Your task to perform on an android device: Check my gmail Image 0: 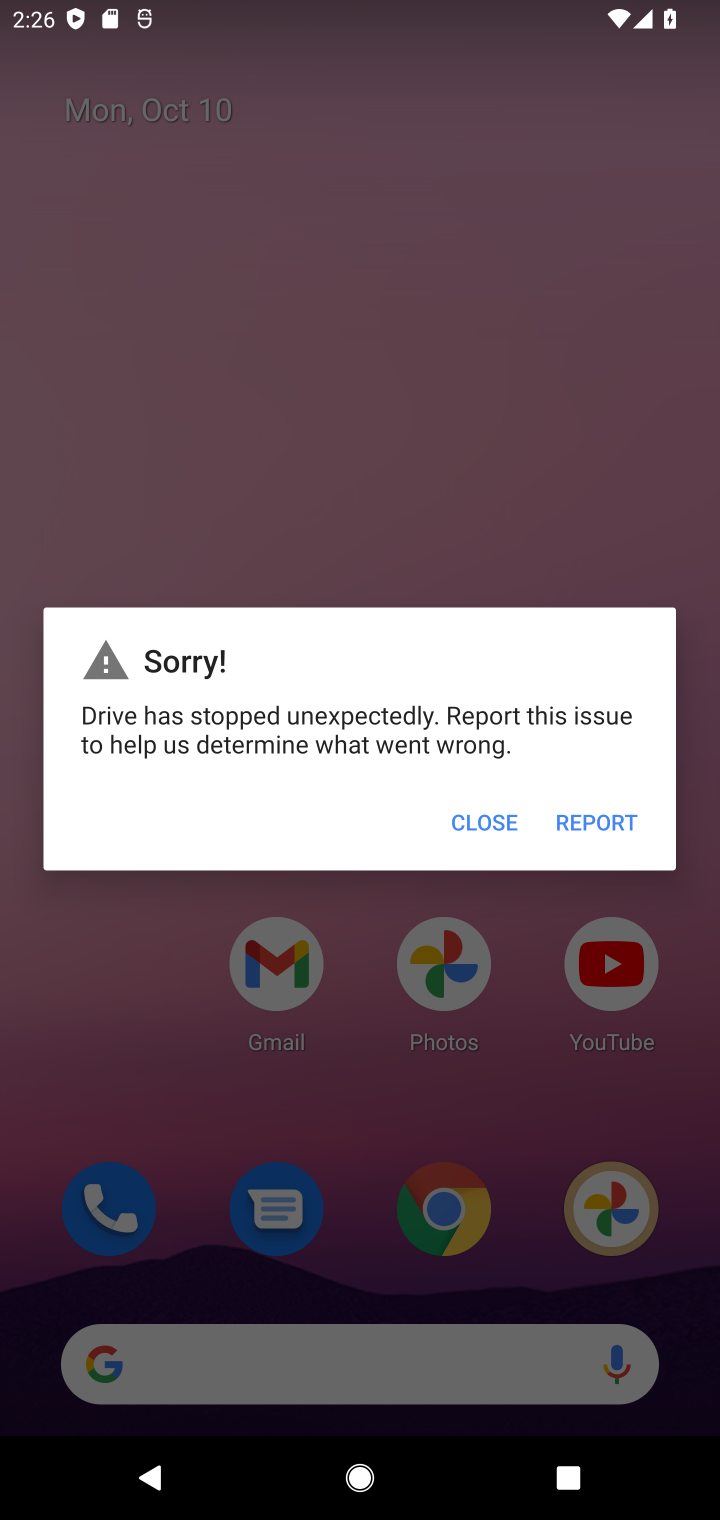
Step 0: click (478, 815)
Your task to perform on an android device: Check my gmail Image 1: 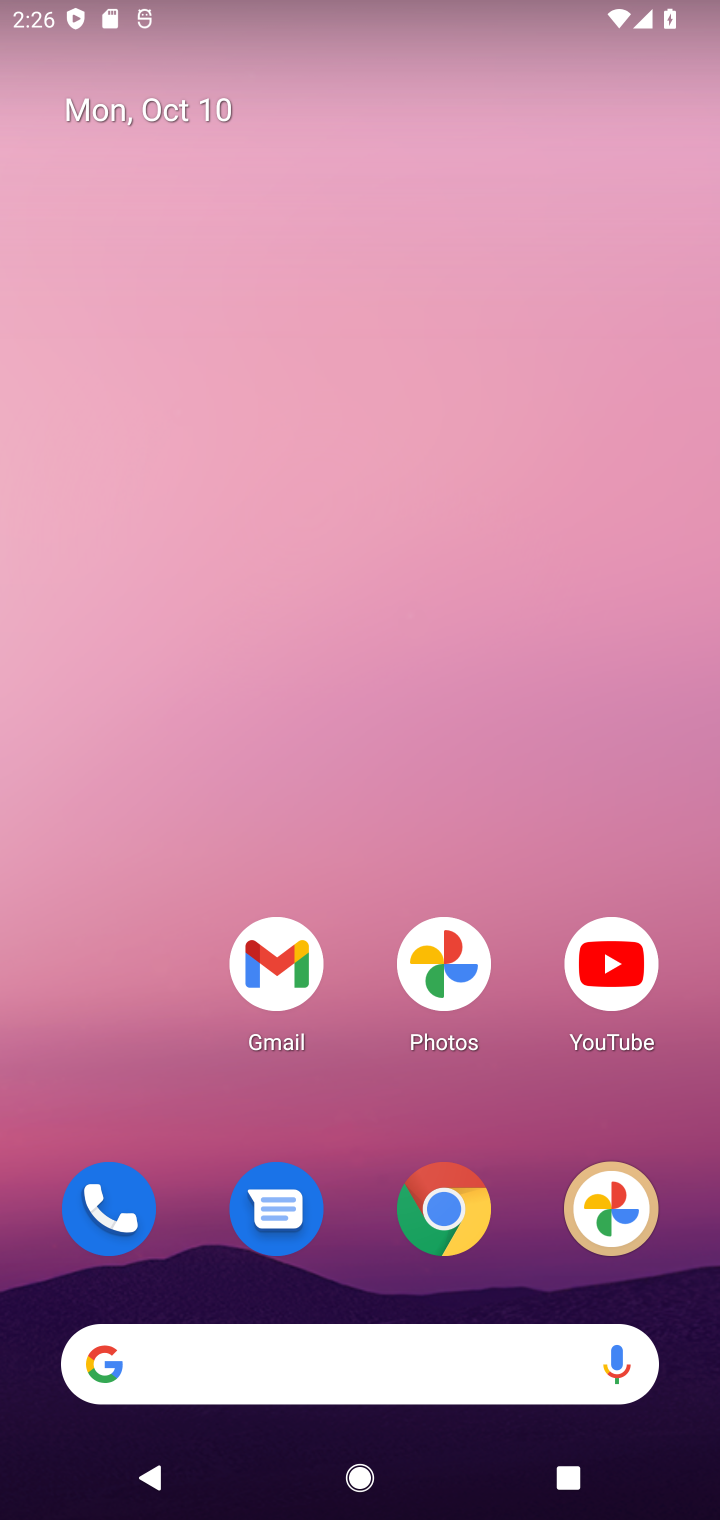
Step 1: click (294, 973)
Your task to perform on an android device: Check my gmail Image 2: 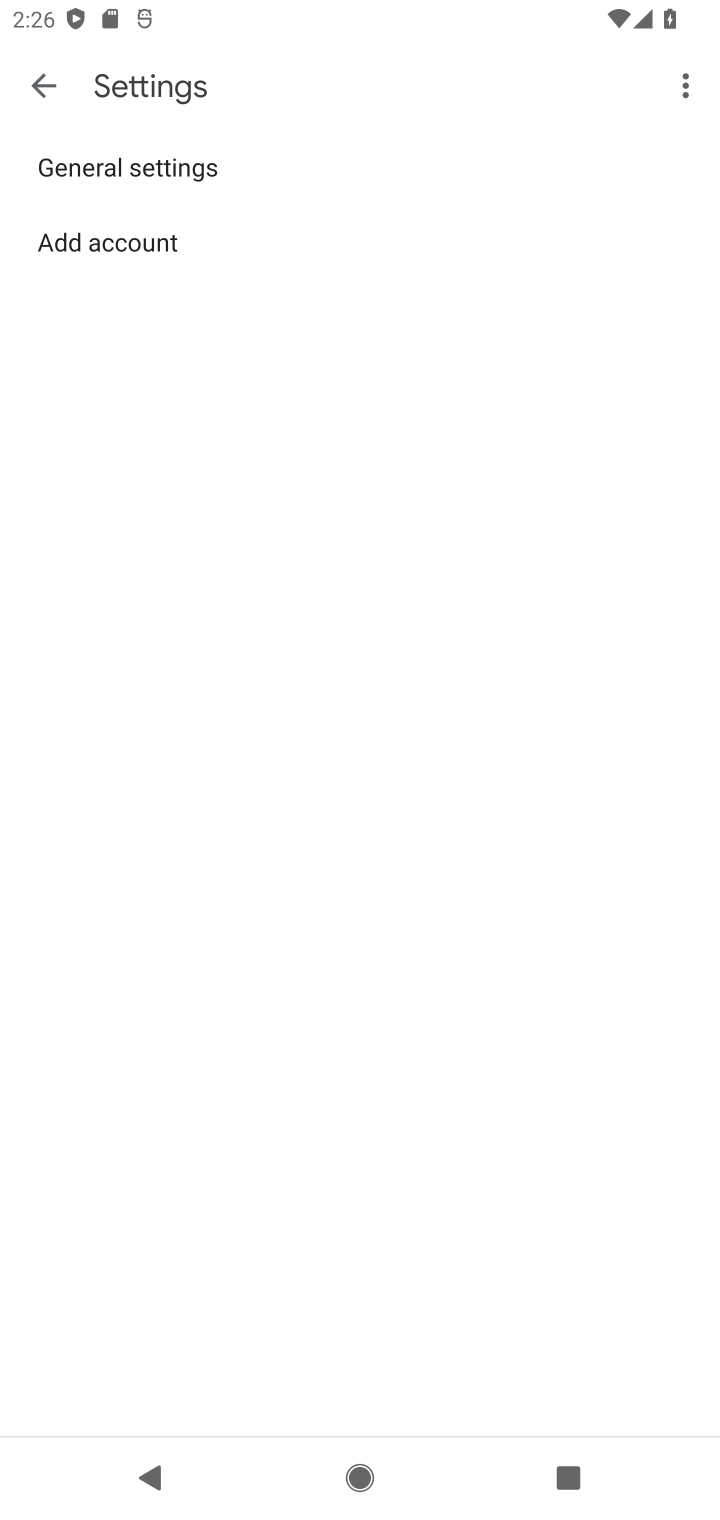
Step 2: task complete